Your task to perform on an android device: search for starred emails in the gmail app Image 0: 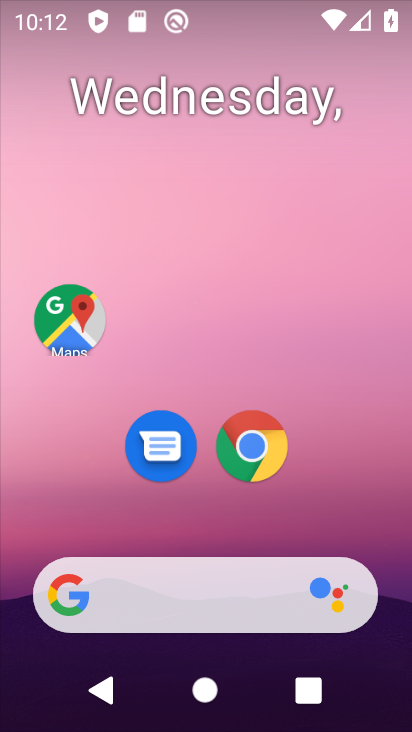
Step 0: drag from (322, 496) to (327, 280)
Your task to perform on an android device: search for starred emails in the gmail app Image 1: 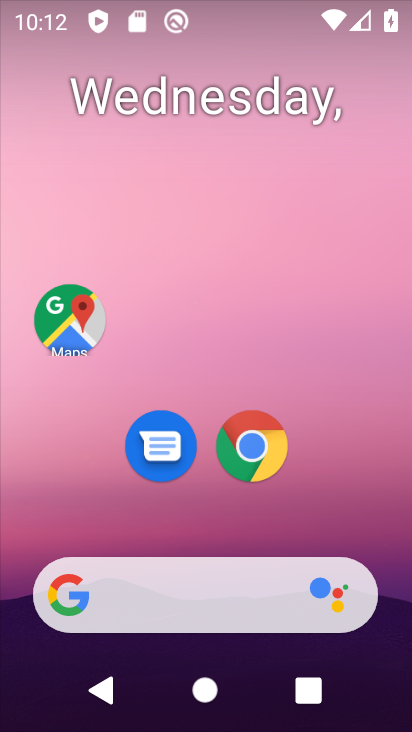
Step 1: drag from (290, 533) to (343, 152)
Your task to perform on an android device: search for starred emails in the gmail app Image 2: 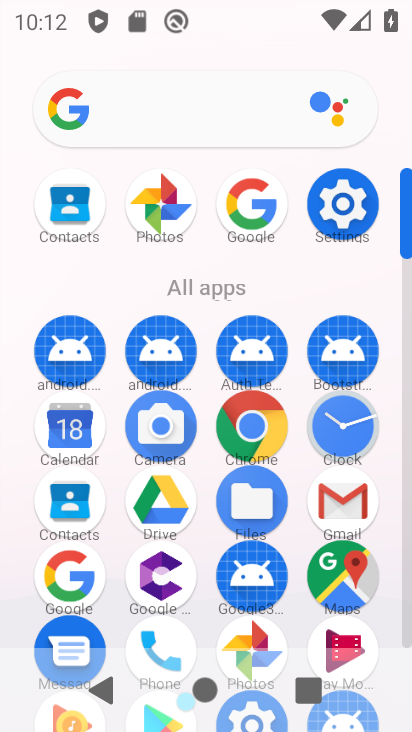
Step 2: click (341, 504)
Your task to perform on an android device: search for starred emails in the gmail app Image 3: 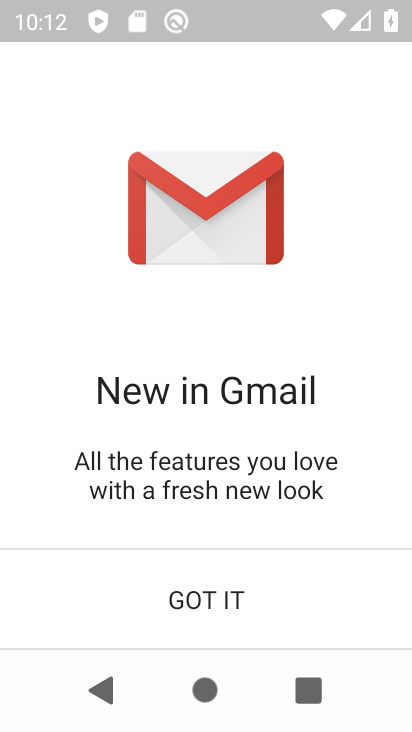
Step 3: click (264, 576)
Your task to perform on an android device: search for starred emails in the gmail app Image 4: 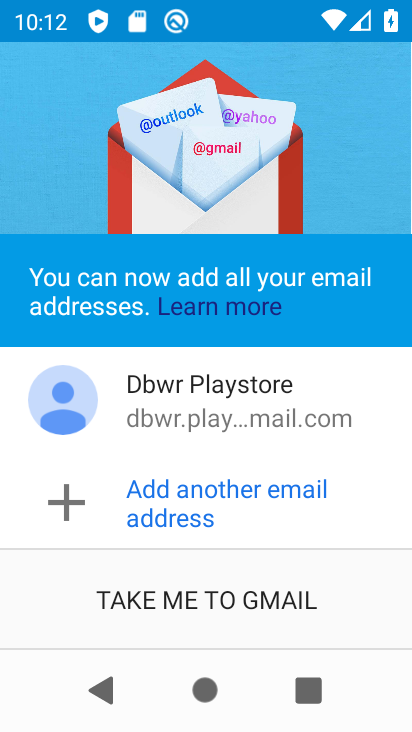
Step 4: click (264, 577)
Your task to perform on an android device: search for starred emails in the gmail app Image 5: 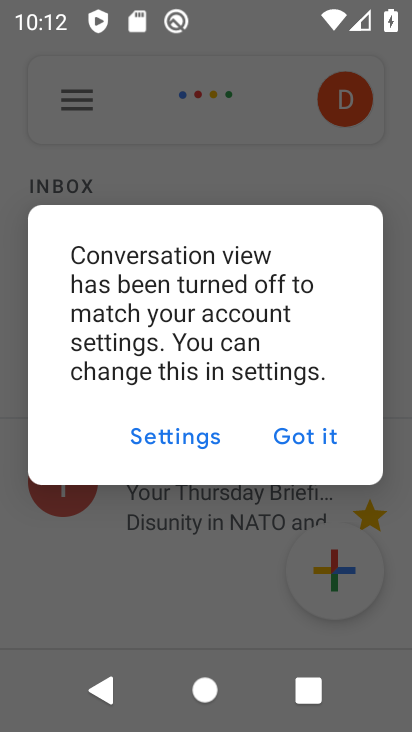
Step 5: click (300, 438)
Your task to perform on an android device: search for starred emails in the gmail app Image 6: 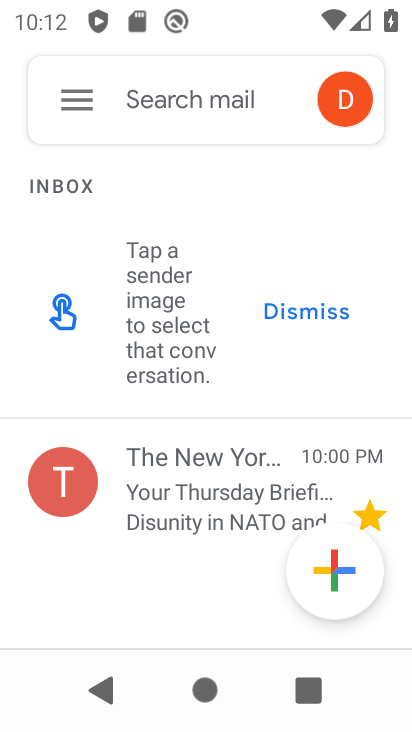
Step 6: click (72, 99)
Your task to perform on an android device: search for starred emails in the gmail app Image 7: 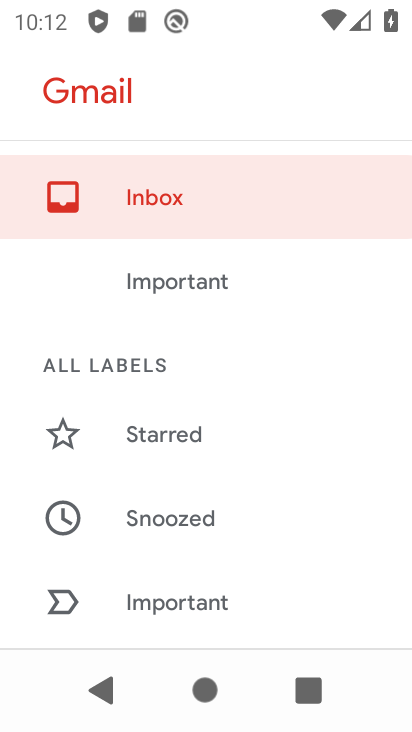
Step 7: click (164, 435)
Your task to perform on an android device: search for starred emails in the gmail app Image 8: 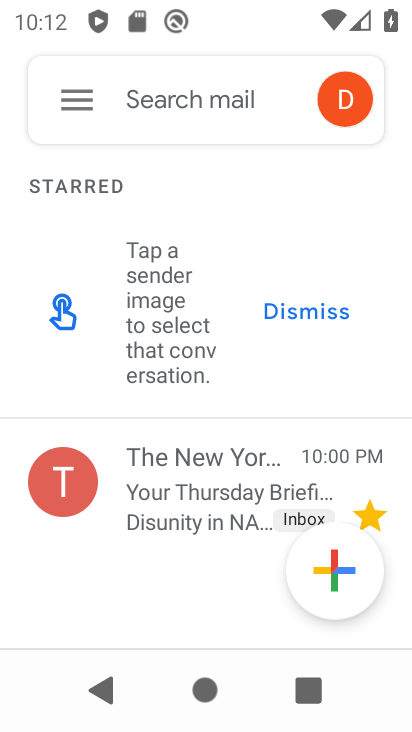
Step 8: task complete